Your task to perform on an android device: Go to settings Image 0: 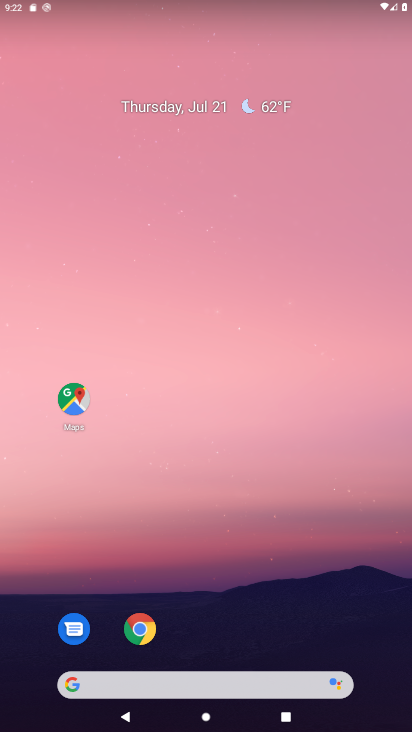
Step 0: drag from (232, 657) to (182, 424)
Your task to perform on an android device: Go to settings Image 1: 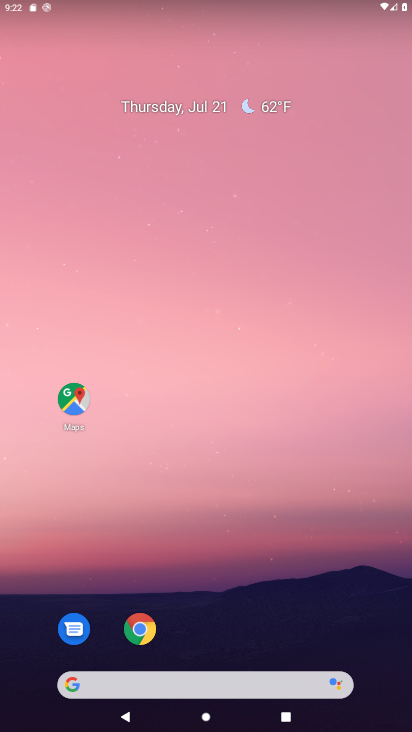
Step 1: click (212, 660)
Your task to perform on an android device: Go to settings Image 2: 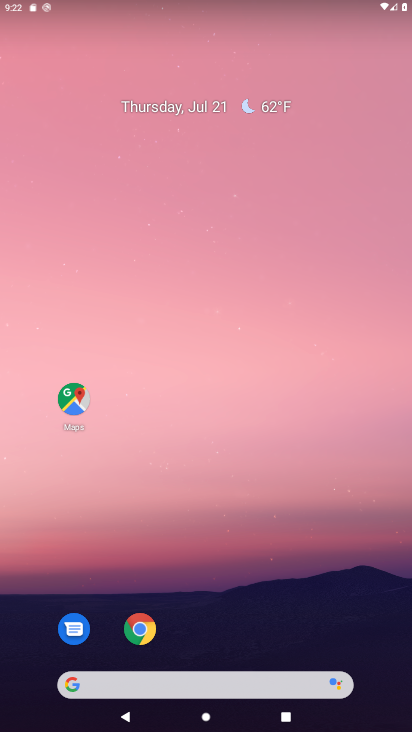
Step 2: drag from (212, 660) to (181, 444)
Your task to perform on an android device: Go to settings Image 3: 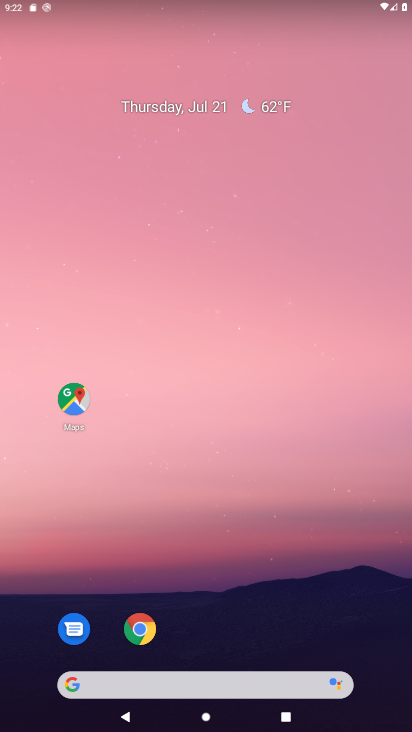
Step 3: drag from (199, 655) to (196, 555)
Your task to perform on an android device: Go to settings Image 4: 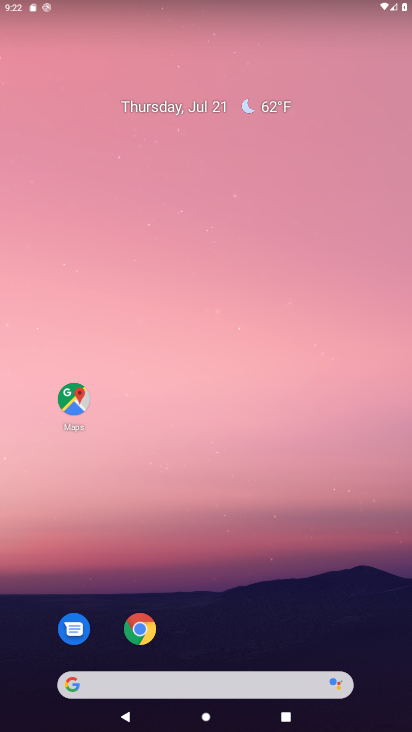
Step 4: drag from (262, 602) to (229, 338)
Your task to perform on an android device: Go to settings Image 5: 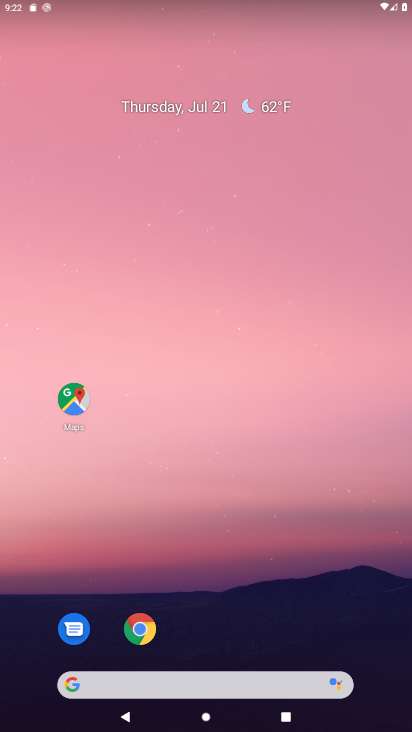
Step 5: drag from (269, 707) to (174, 192)
Your task to perform on an android device: Go to settings Image 6: 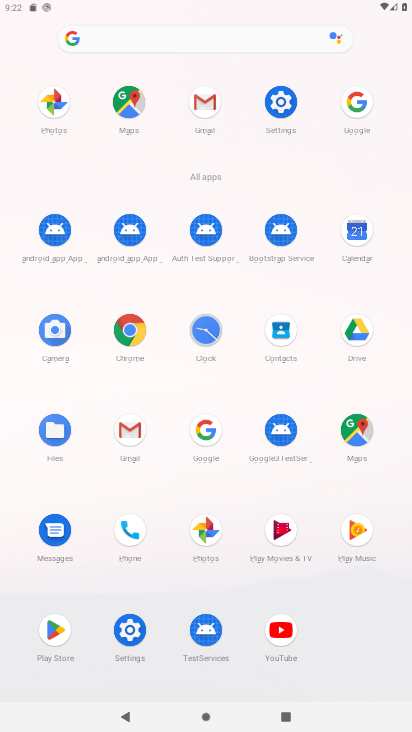
Step 6: click (280, 101)
Your task to perform on an android device: Go to settings Image 7: 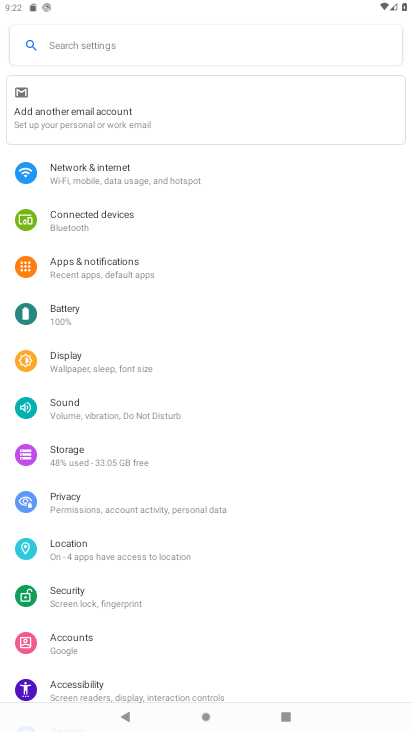
Step 7: task complete